Your task to perform on an android device: empty trash in google photos Image 0: 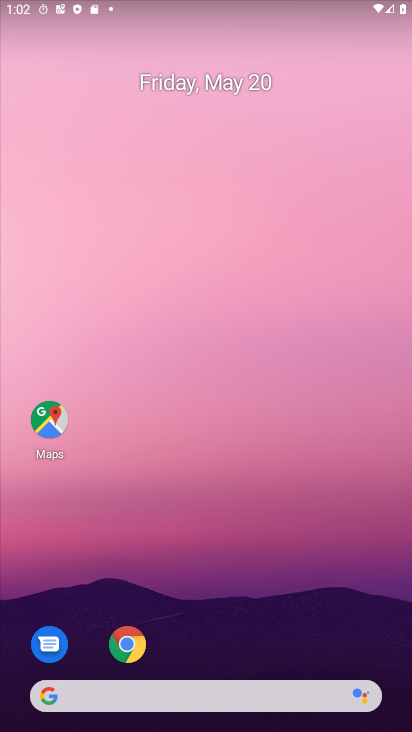
Step 0: drag from (257, 582) to (286, 42)
Your task to perform on an android device: empty trash in google photos Image 1: 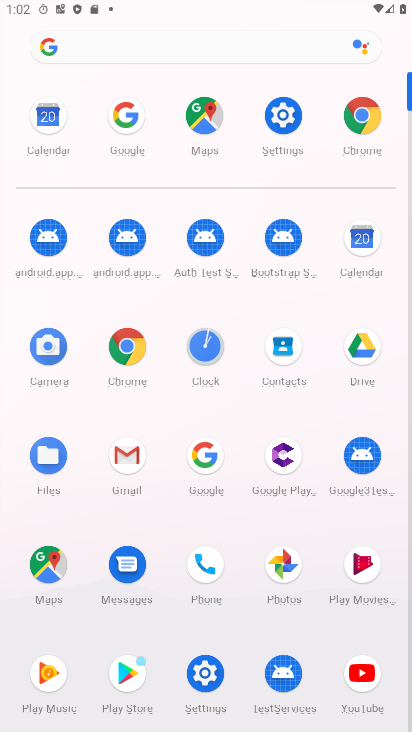
Step 1: click (286, 573)
Your task to perform on an android device: empty trash in google photos Image 2: 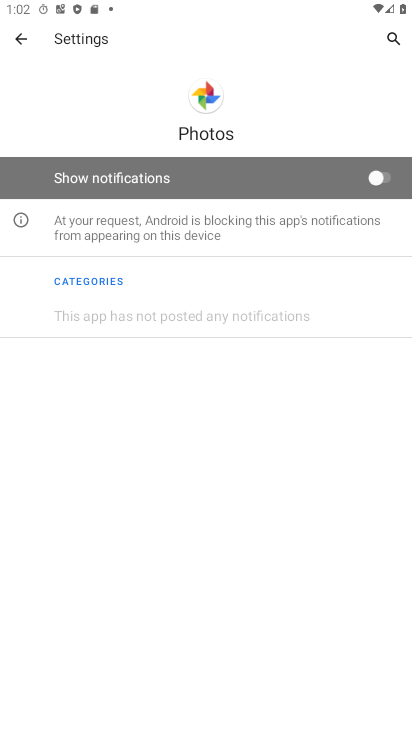
Step 2: click (18, 48)
Your task to perform on an android device: empty trash in google photos Image 3: 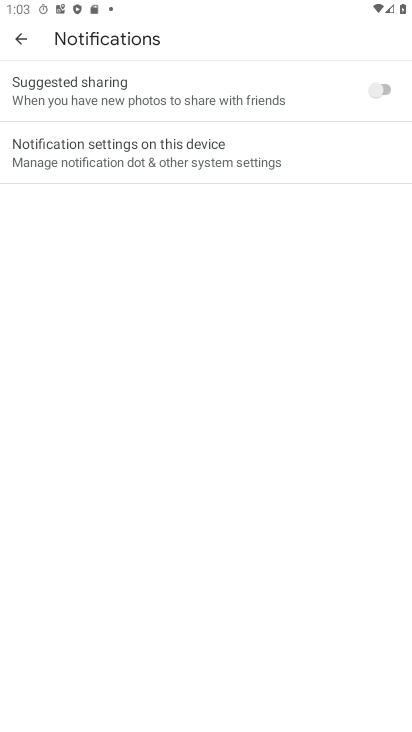
Step 3: click (18, 47)
Your task to perform on an android device: empty trash in google photos Image 4: 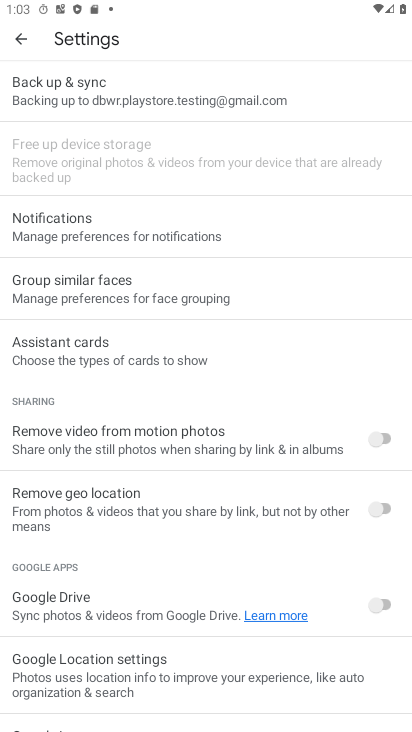
Step 4: click (18, 47)
Your task to perform on an android device: empty trash in google photos Image 5: 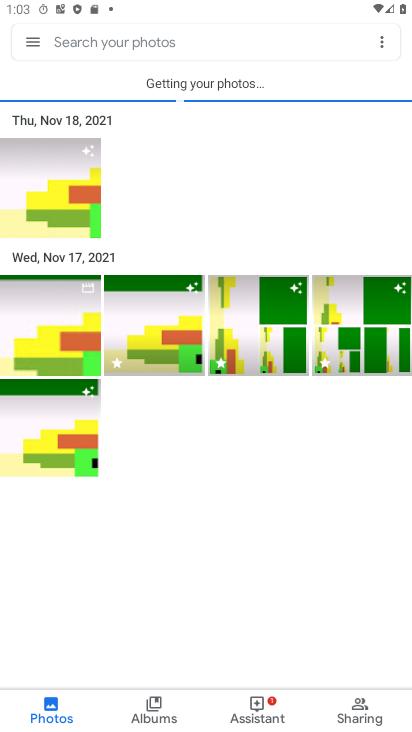
Step 5: click (30, 38)
Your task to perform on an android device: empty trash in google photos Image 6: 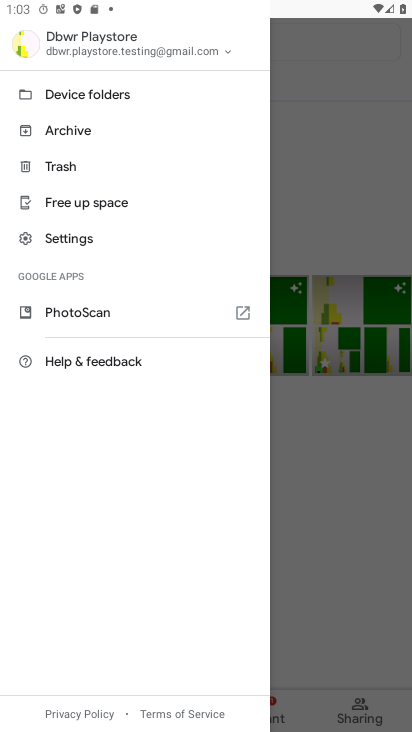
Step 6: click (57, 155)
Your task to perform on an android device: empty trash in google photos Image 7: 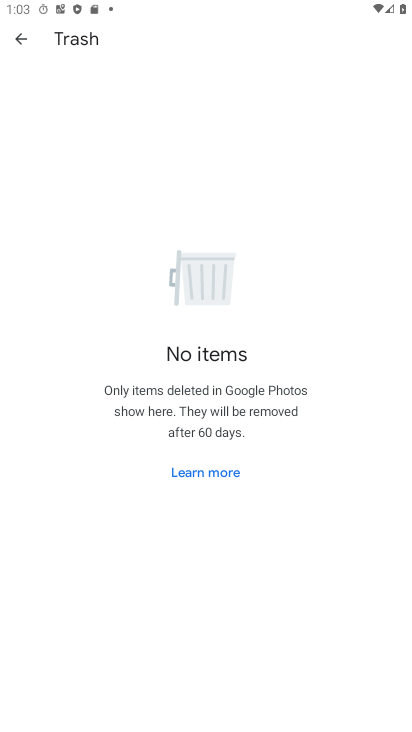
Step 7: task complete